Your task to perform on an android device: Go to battery settings Image 0: 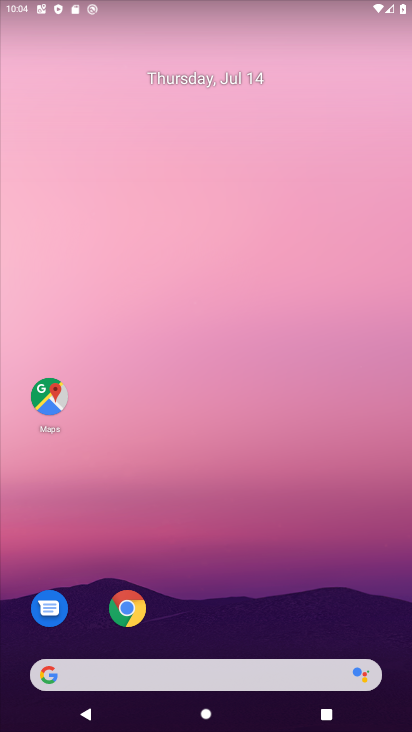
Step 0: press home button
Your task to perform on an android device: Go to battery settings Image 1: 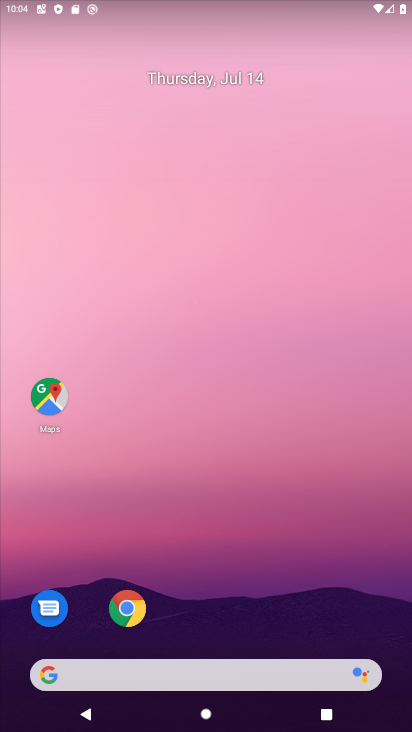
Step 1: drag from (161, 473) to (134, 208)
Your task to perform on an android device: Go to battery settings Image 2: 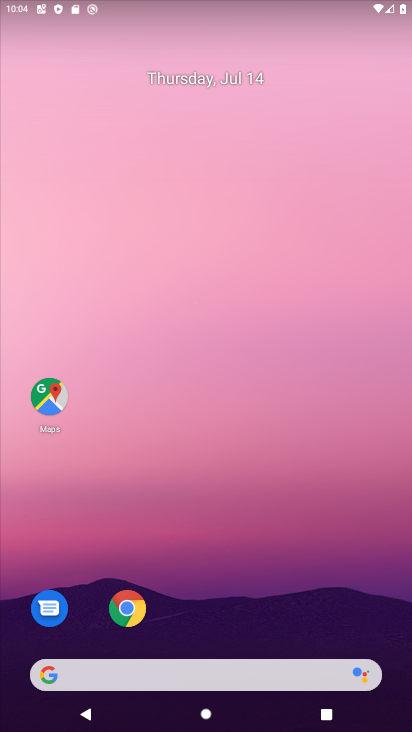
Step 2: drag from (198, 600) to (182, 150)
Your task to perform on an android device: Go to battery settings Image 3: 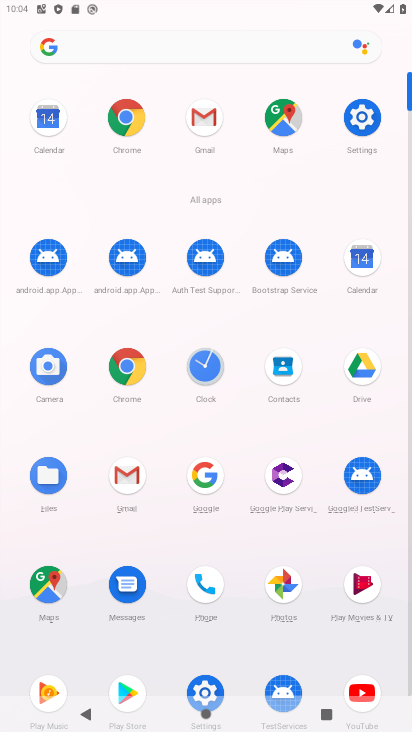
Step 3: click (369, 111)
Your task to perform on an android device: Go to battery settings Image 4: 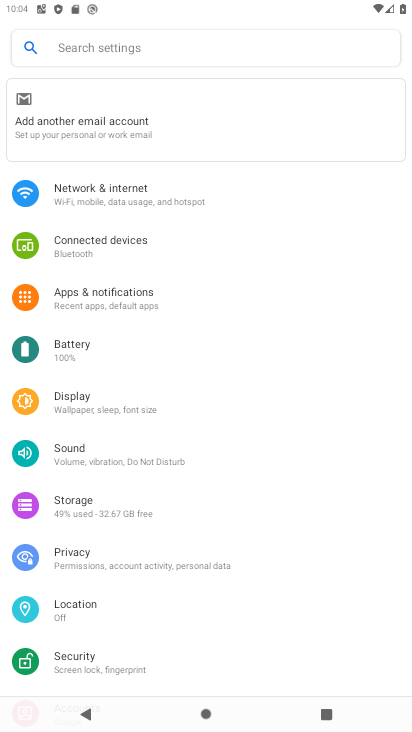
Step 4: click (96, 278)
Your task to perform on an android device: Go to battery settings Image 5: 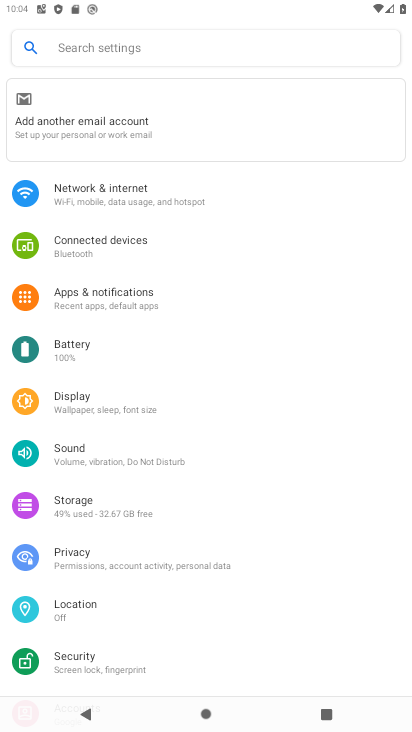
Step 5: click (62, 345)
Your task to perform on an android device: Go to battery settings Image 6: 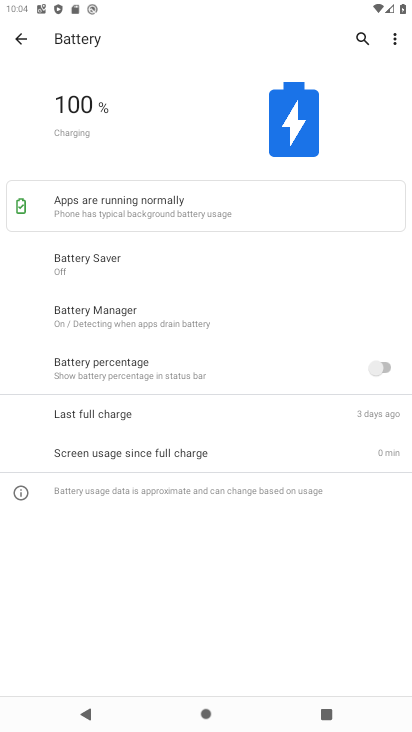
Step 6: task complete